Your task to perform on an android device: What's the weather going to be tomorrow? Image 0: 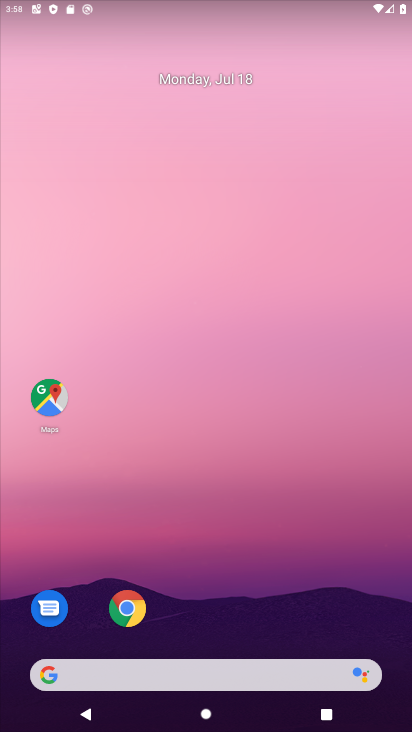
Step 0: click (150, 685)
Your task to perform on an android device: What's the weather going to be tomorrow? Image 1: 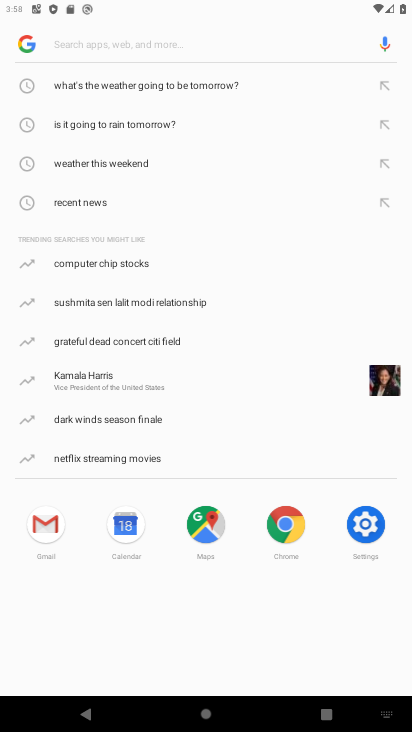
Step 1: type "What's the weather going to be tomorrow?"
Your task to perform on an android device: What's the weather going to be tomorrow? Image 2: 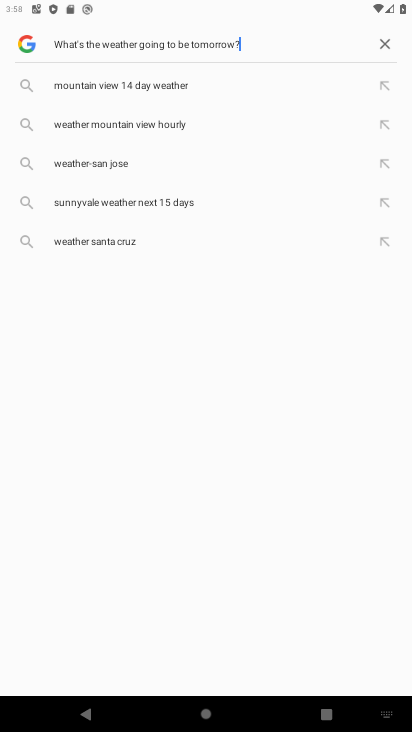
Step 2: press enter
Your task to perform on an android device: What's the weather going to be tomorrow? Image 3: 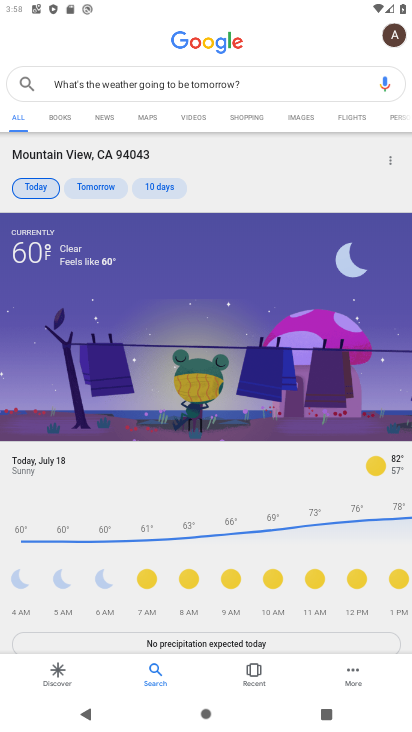
Step 3: task complete